Your task to perform on an android device: Open Google Maps Image 0: 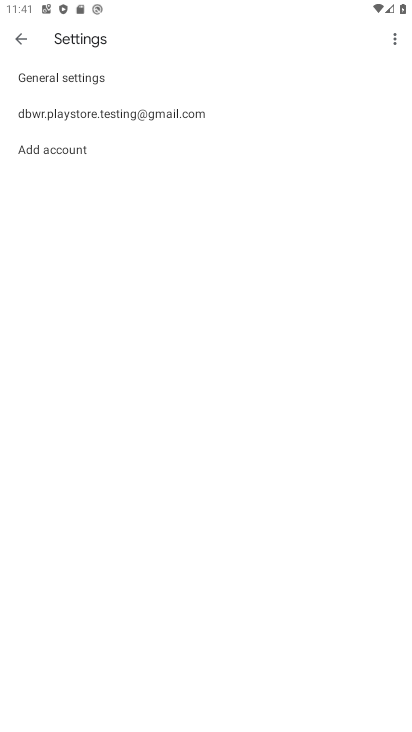
Step 0: press home button
Your task to perform on an android device: Open Google Maps Image 1: 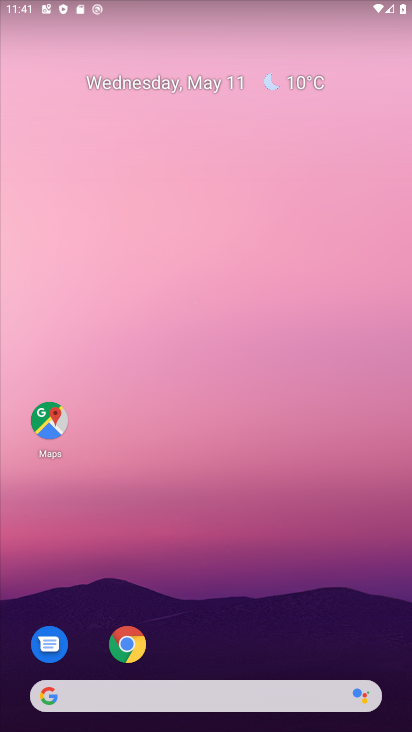
Step 1: click (48, 423)
Your task to perform on an android device: Open Google Maps Image 2: 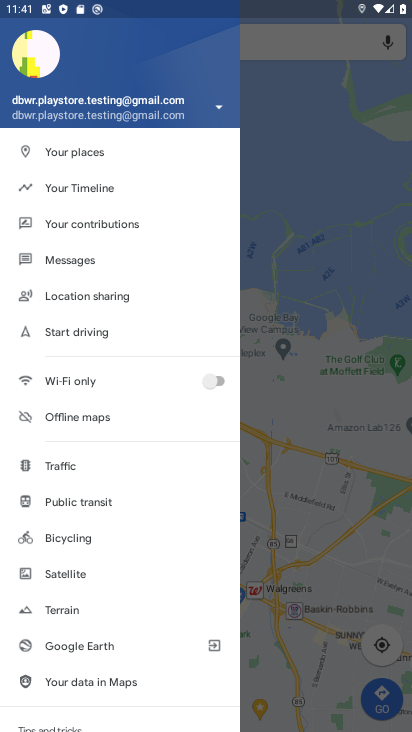
Step 2: task complete